Your task to perform on an android device: toggle location history Image 0: 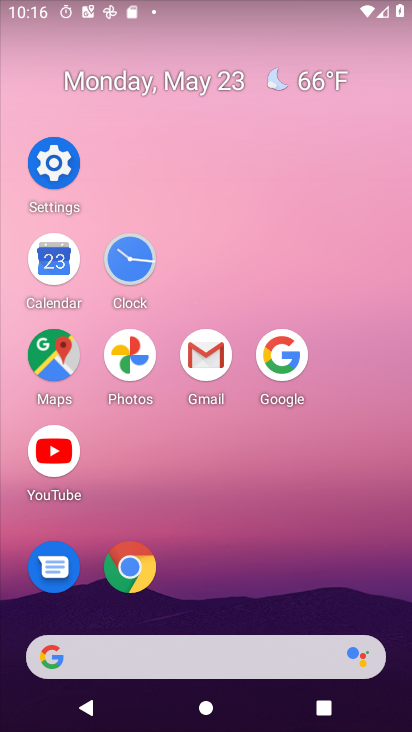
Step 0: click (71, 150)
Your task to perform on an android device: toggle location history Image 1: 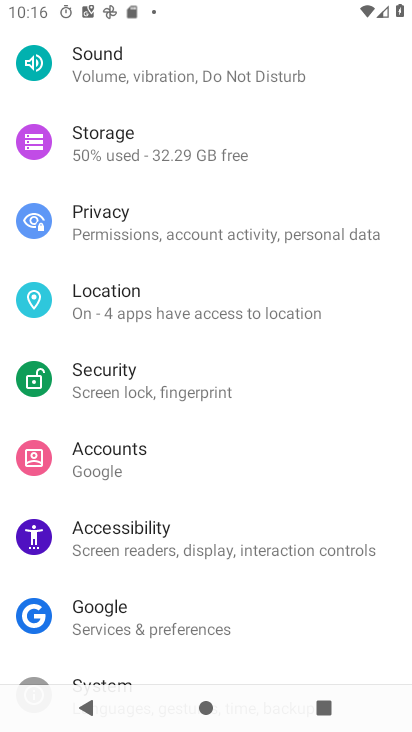
Step 1: drag from (159, 608) to (230, 316)
Your task to perform on an android device: toggle location history Image 2: 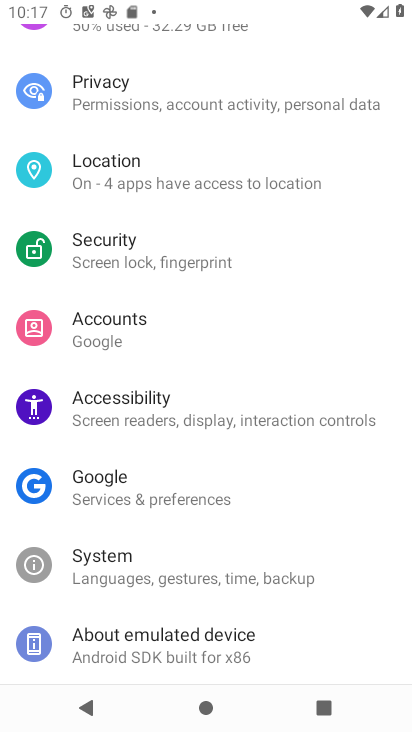
Step 2: click (146, 188)
Your task to perform on an android device: toggle location history Image 3: 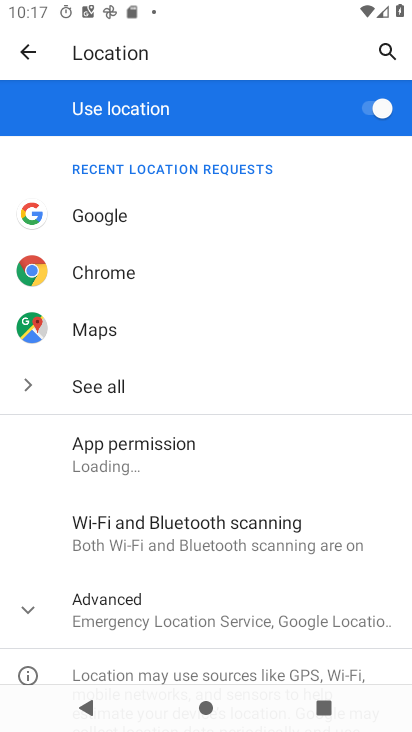
Step 3: click (121, 624)
Your task to perform on an android device: toggle location history Image 4: 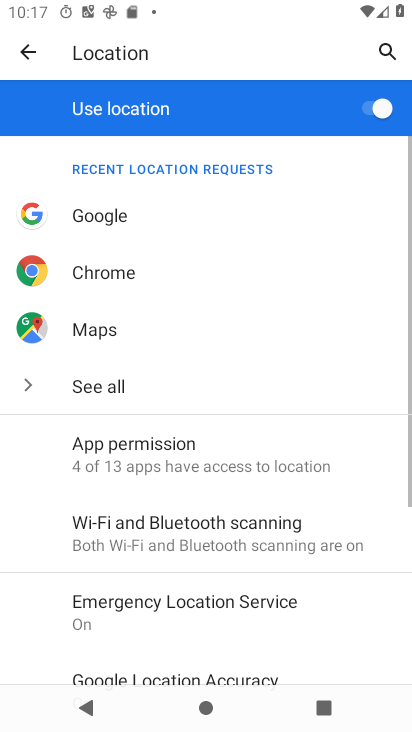
Step 4: drag from (121, 624) to (136, 135)
Your task to perform on an android device: toggle location history Image 5: 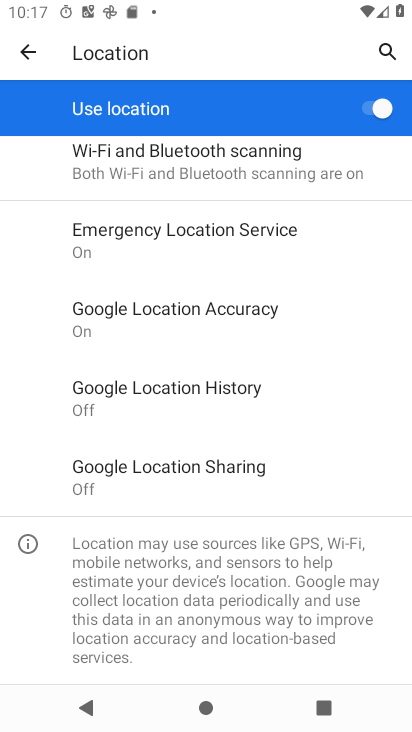
Step 5: click (161, 395)
Your task to perform on an android device: toggle location history Image 6: 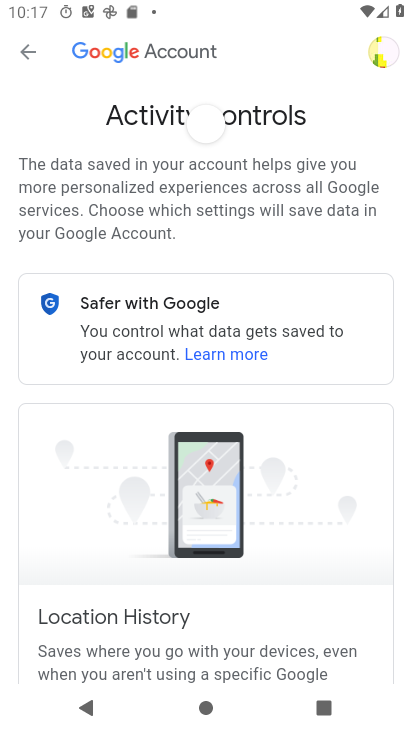
Step 6: drag from (248, 483) to (238, 169)
Your task to perform on an android device: toggle location history Image 7: 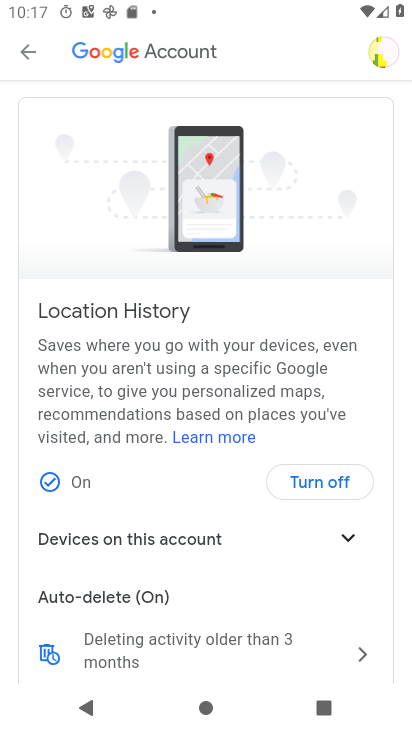
Step 7: click (336, 489)
Your task to perform on an android device: toggle location history Image 8: 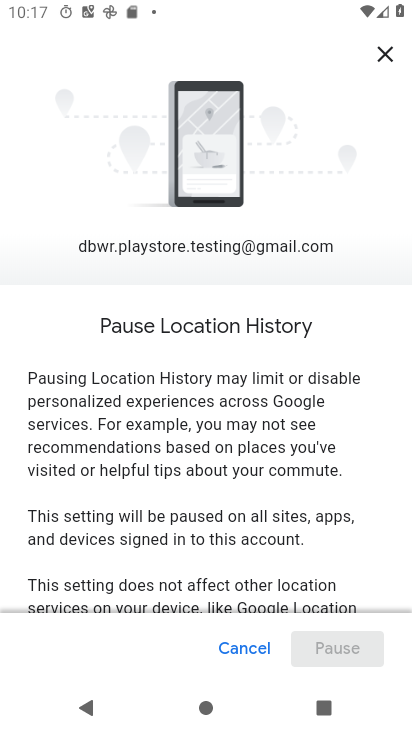
Step 8: drag from (253, 498) to (293, 93)
Your task to perform on an android device: toggle location history Image 9: 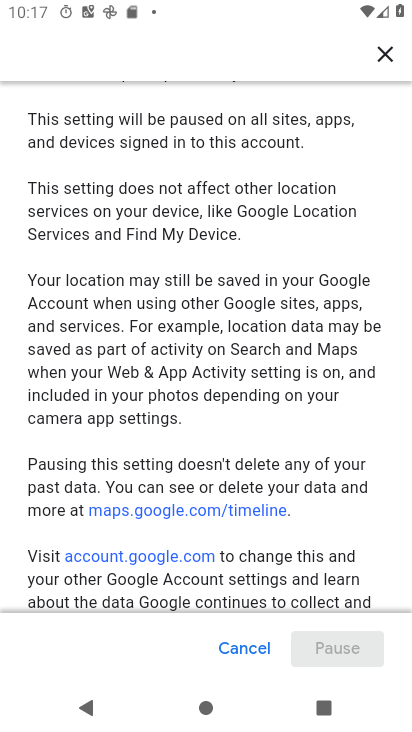
Step 9: drag from (269, 558) to (278, 189)
Your task to perform on an android device: toggle location history Image 10: 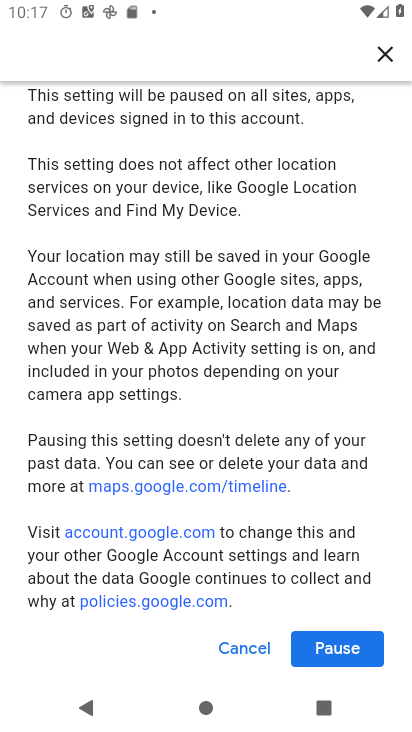
Step 10: click (346, 660)
Your task to perform on an android device: toggle location history Image 11: 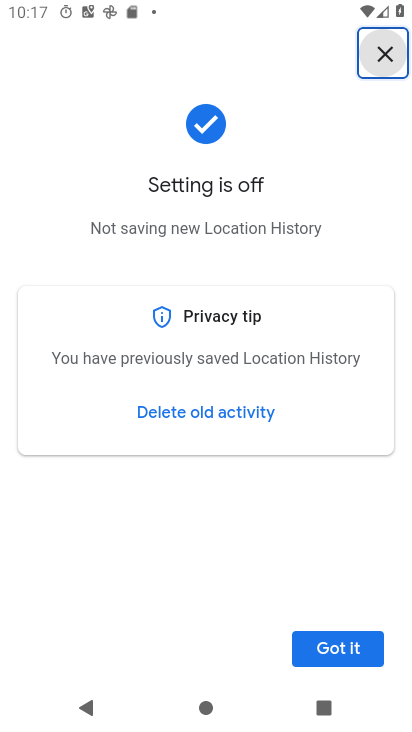
Step 11: click (346, 660)
Your task to perform on an android device: toggle location history Image 12: 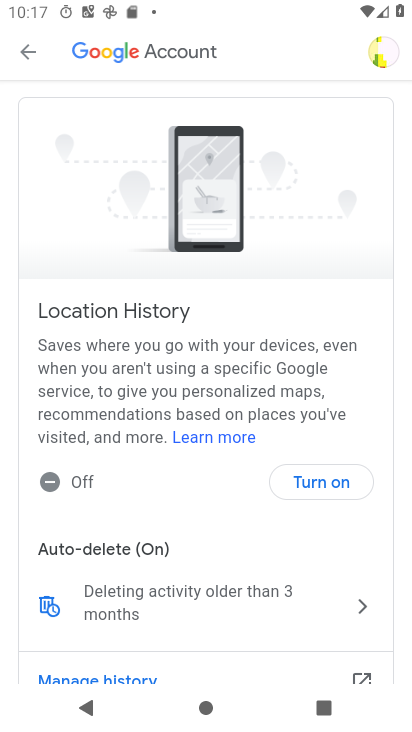
Step 12: task complete